Your task to perform on an android device: turn on wifi Image 0: 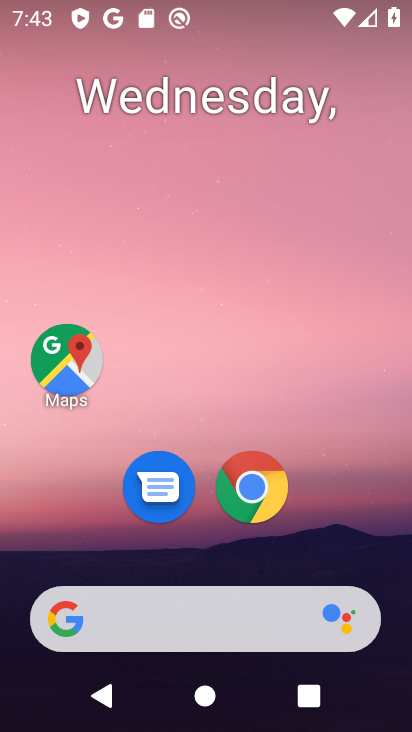
Step 0: drag from (218, 640) to (244, 83)
Your task to perform on an android device: turn on wifi Image 1: 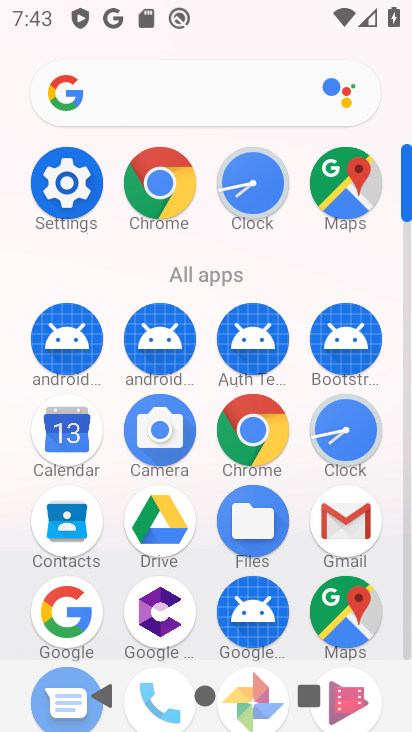
Step 1: click (78, 215)
Your task to perform on an android device: turn on wifi Image 2: 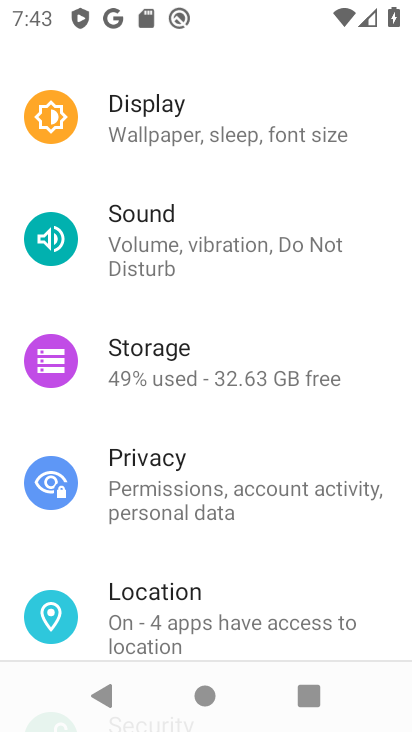
Step 2: drag from (178, 177) to (185, 564)
Your task to perform on an android device: turn on wifi Image 3: 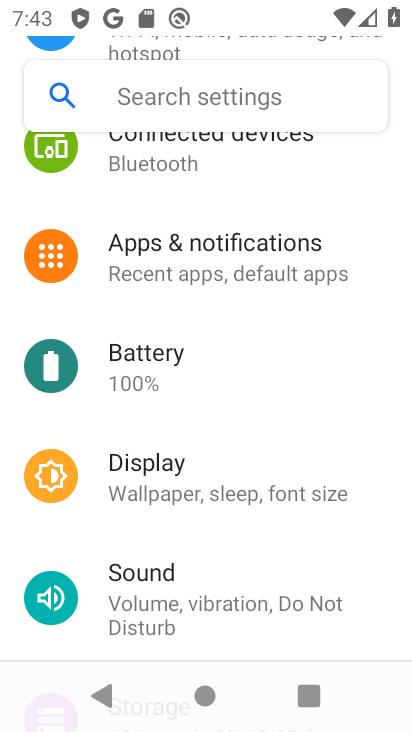
Step 3: drag from (158, 211) to (158, 503)
Your task to perform on an android device: turn on wifi Image 4: 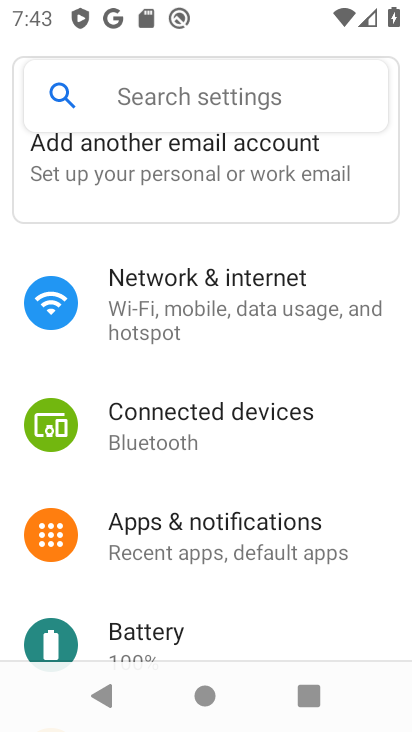
Step 4: click (167, 308)
Your task to perform on an android device: turn on wifi Image 5: 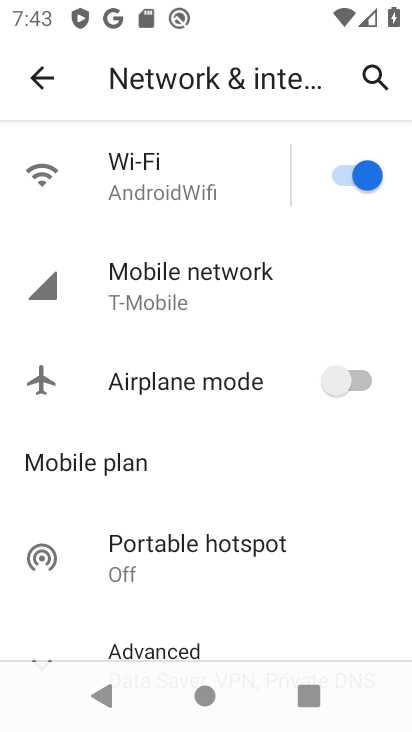
Step 5: task complete